Your task to perform on an android device: Go to wifi settings Image 0: 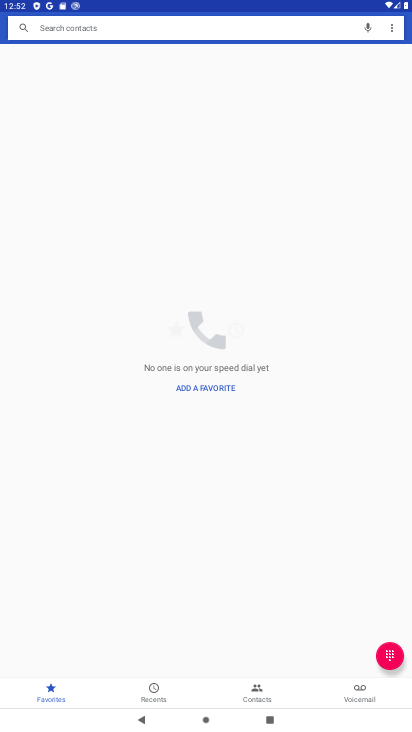
Step 0: press home button
Your task to perform on an android device: Go to wifi settings Image 1: 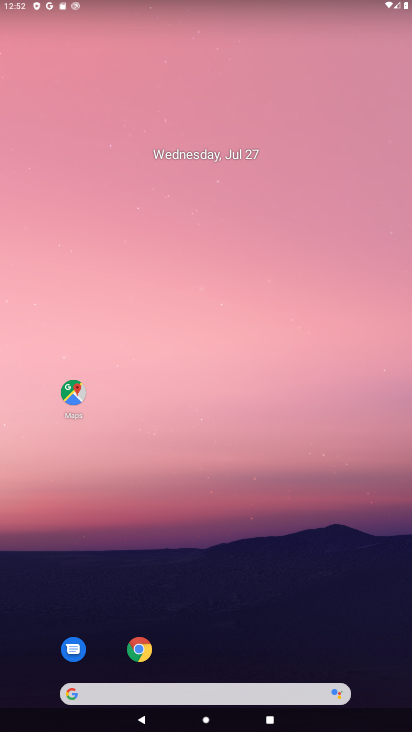
Step 1: drag from (247, 578) to (185, 85)
Your task to perform on an android device: Go to wifi settings Image 2: 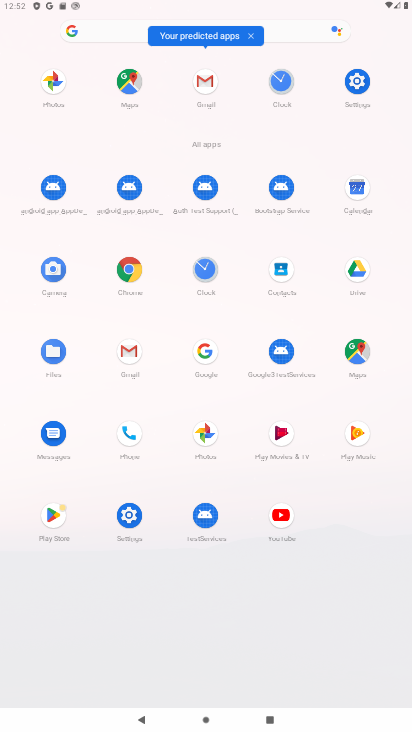
Step 2: click (358, 80)
Your task to perform on an android device: Go to wifi settings Image 3: 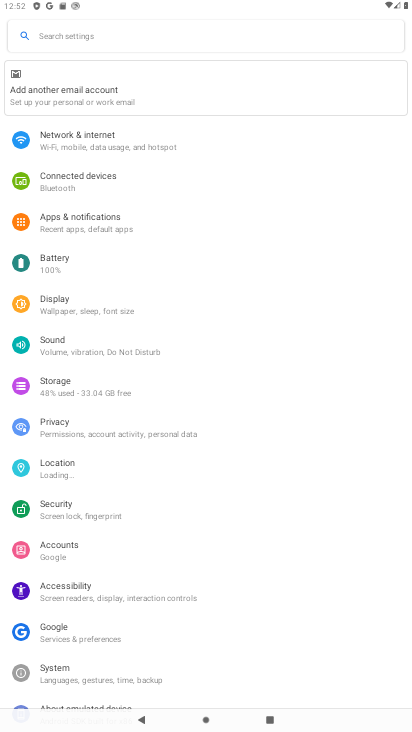
Step 3: click (73, 130)
Your task to perform on an android device: Go to wifi settings Image 4: 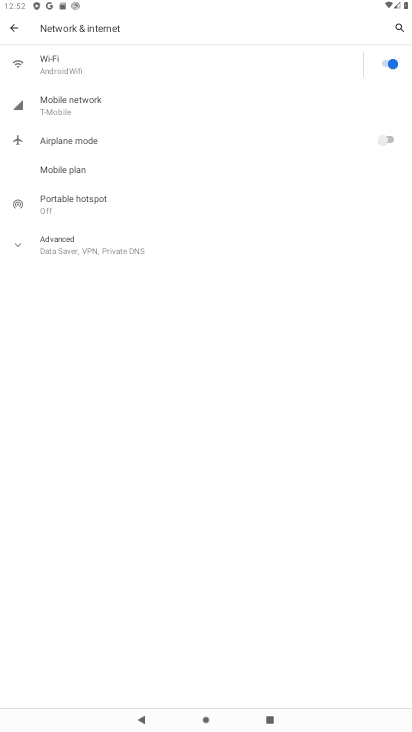
Step 4: click (75, 65)
Your task to perform on an android device: Go to wifi settings Image 5: 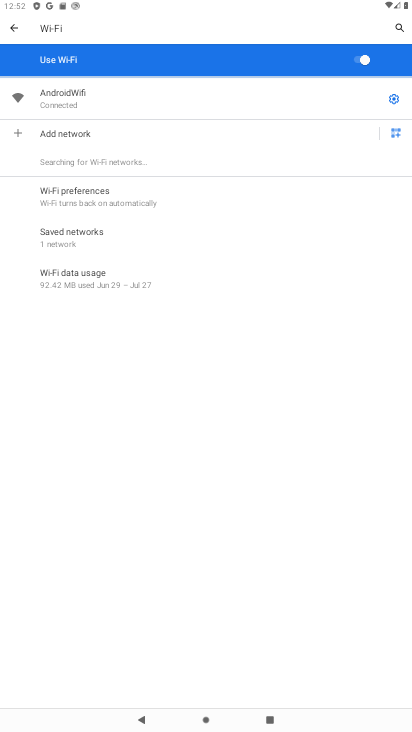
Step 5: task complete